Your task to perform on an android device: toggle wifi Image 0: 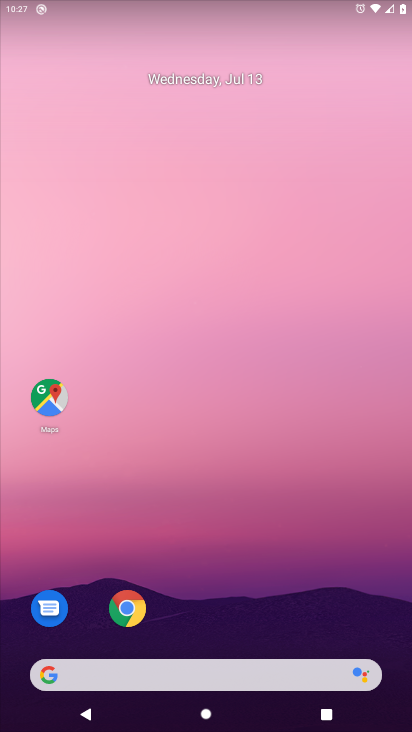
Step 0: drag from (34, 691) to (318, 45)
Your task to perform on an android device: toggle wifi Image 1: 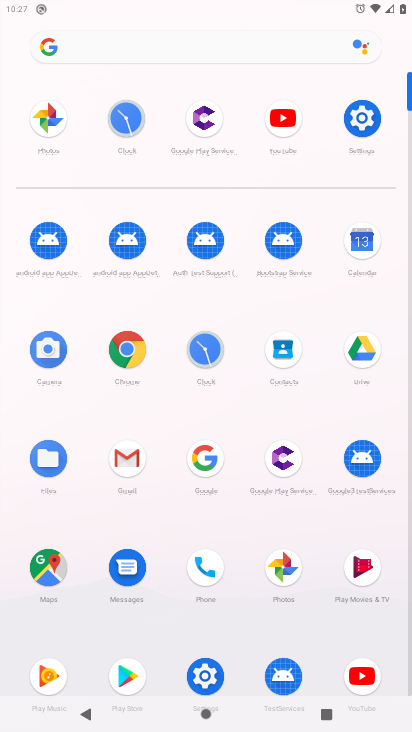
Step 1: click (365, 111)
Your task to perform on an android device: toggle wifi Image 2: 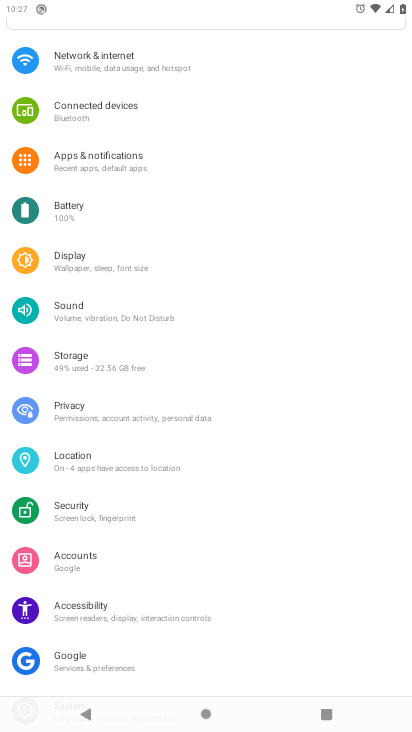
Step 2: click (139, 44)
Your task to perform on an android device: toggle wifi Image 3: 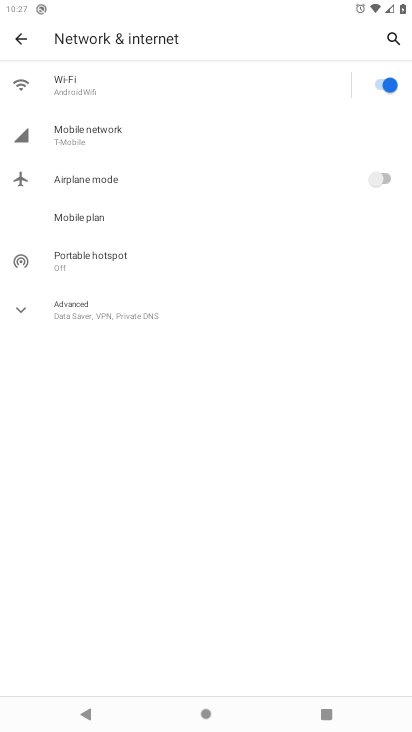
Step 3: task complete